Your task to perform on an android device: Go to accessibility settings Image 0: 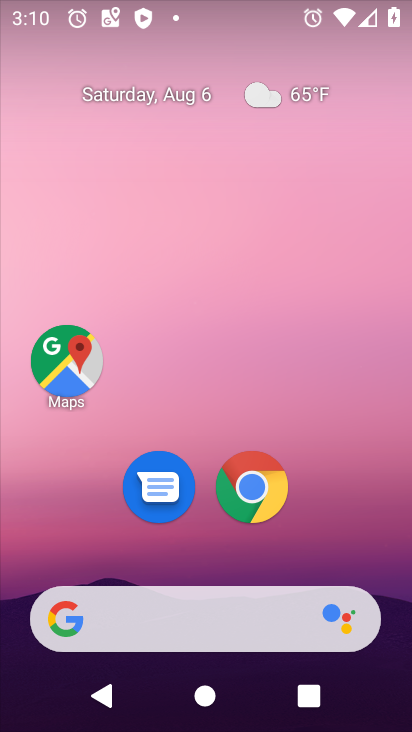
Step 0: drag from (252, 602) to (214, 68)
Your task to perform on an android device: Go to accessibility settings Image 1: 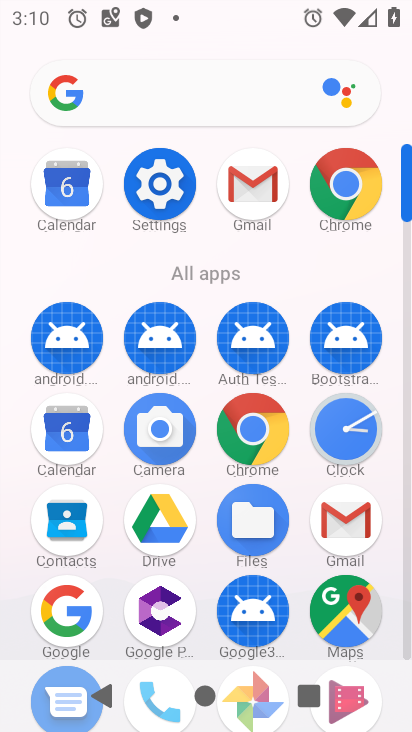
Step 1: click (145, 196)
Your task to perform on an android device: Go to accessibility settings Image 2: 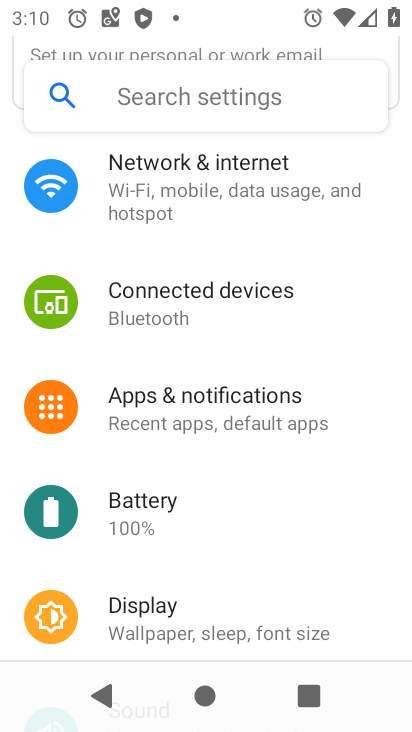
Step 2: drag from (242, 572) to (285, 103)
Your task to perform on an android device: Go to accessibility settings Image 3: 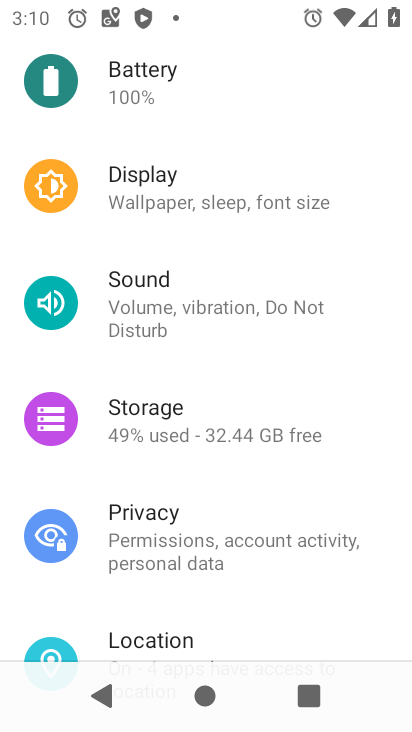
Step 3: drag from (201, 590) to (215, 148)
Your task to perform on an android device: Go to accessibility settings Image 4: 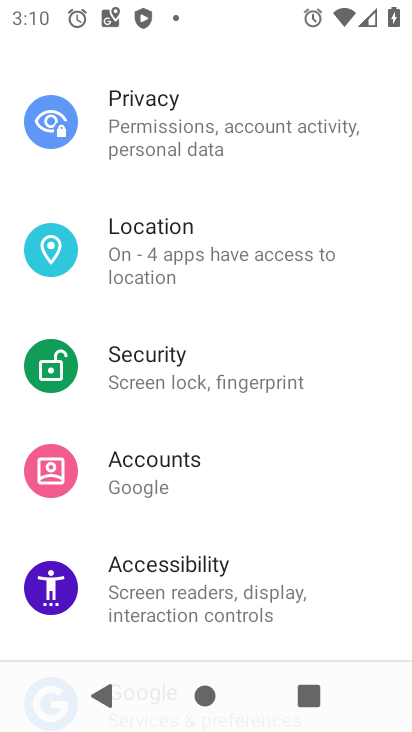
Step 4: click (197, 579)
Your task to perform on an android device: Go to accessibility settings Image 5: 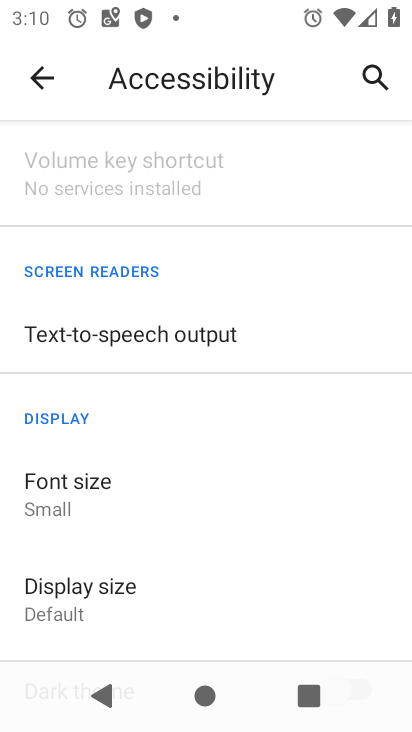
Step 5: task complete